Your task to perform on an android device: install app "Microsoft Authenticator" Image 0: 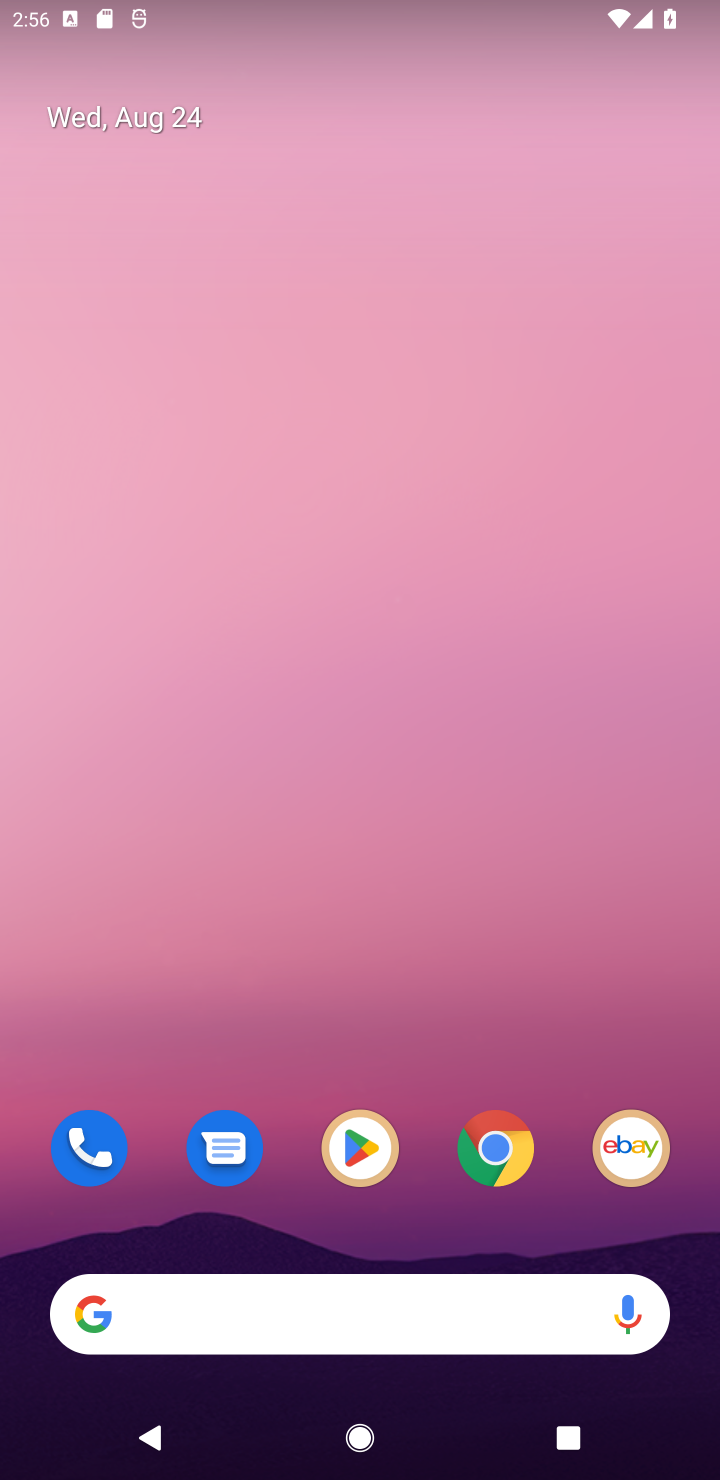
Step 0: drag from (284, 1222) to (254, 407)
Your task to perform on an android device: install app "Microsoft Authenticator" Image 1: 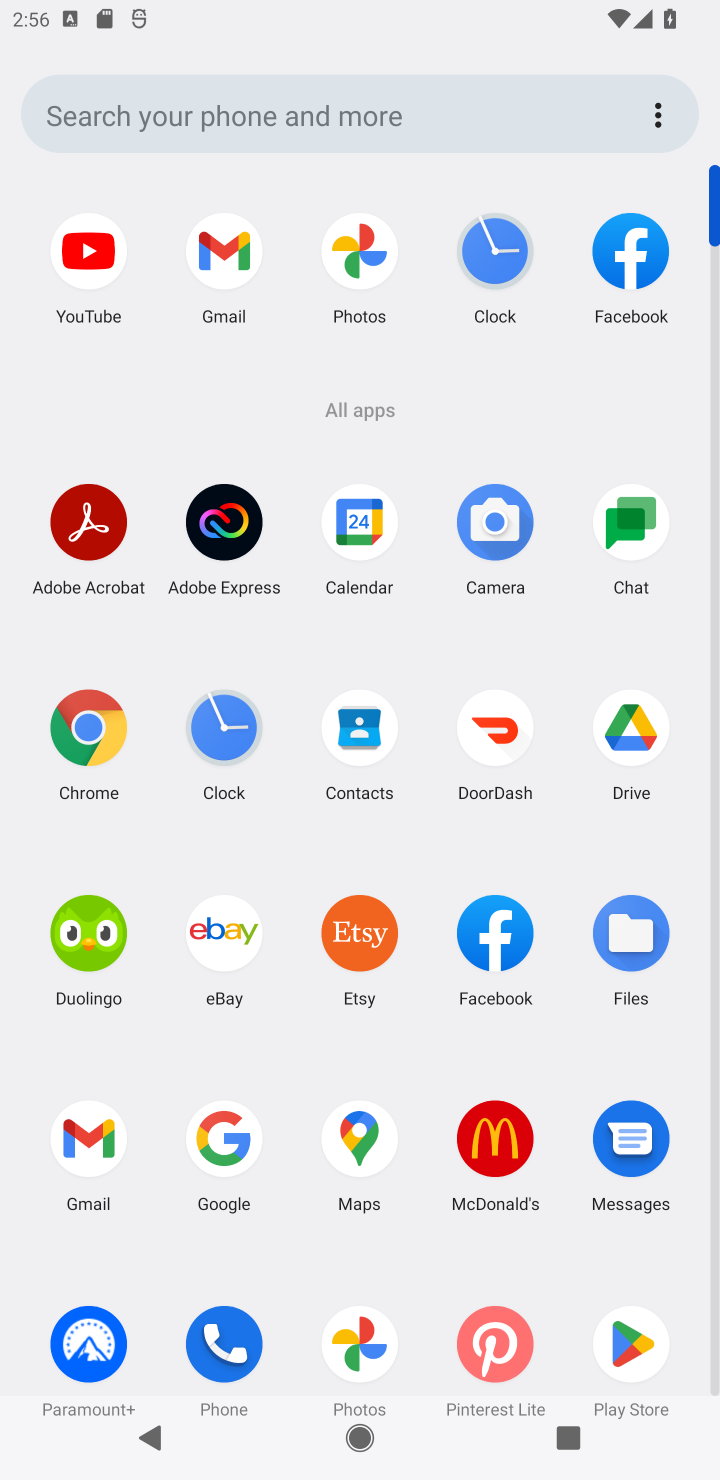
Step 1: click (630, 1322)
Your task to perform on an android device: install app "Microsoft Authenticator" Image 2: 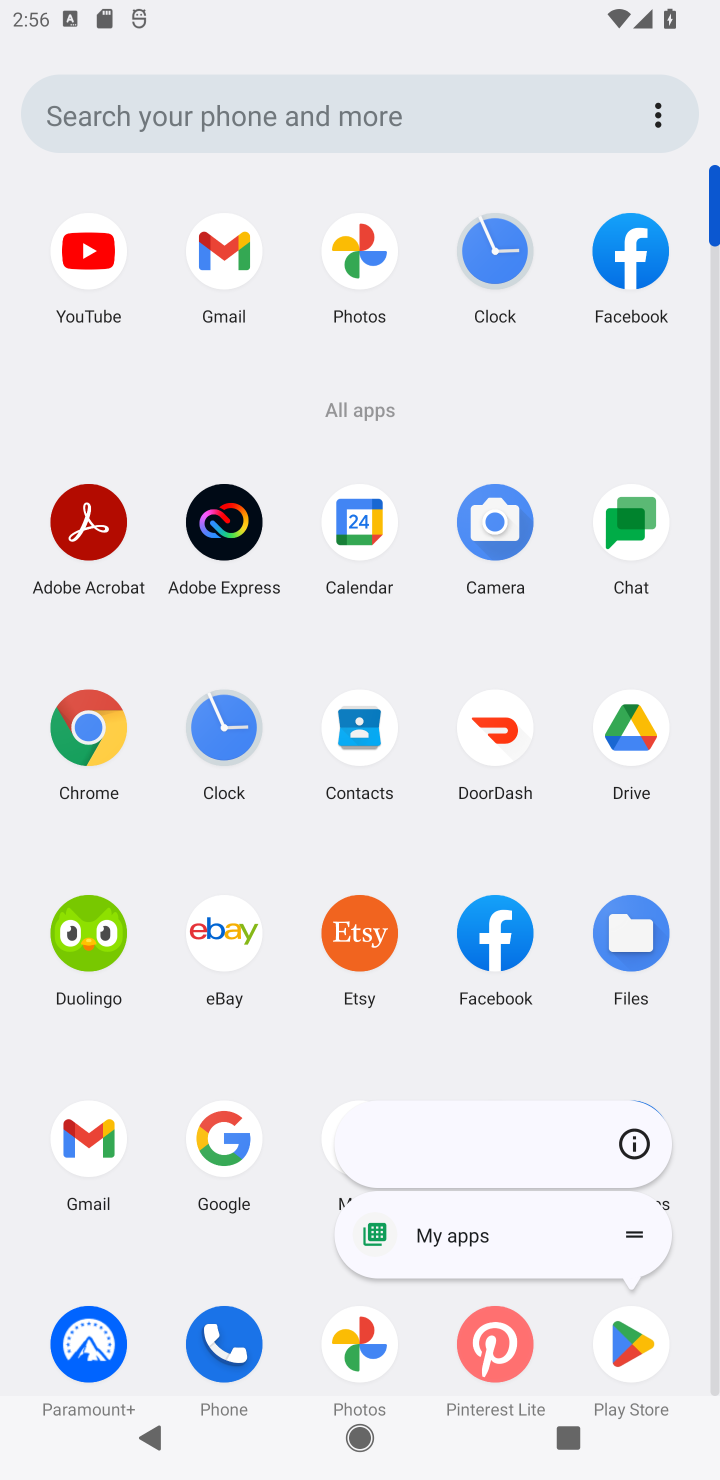
Step 2: click (634, 1317)
Your task to perform on an android device: install app "Microsoft Authenticator" Image 3: 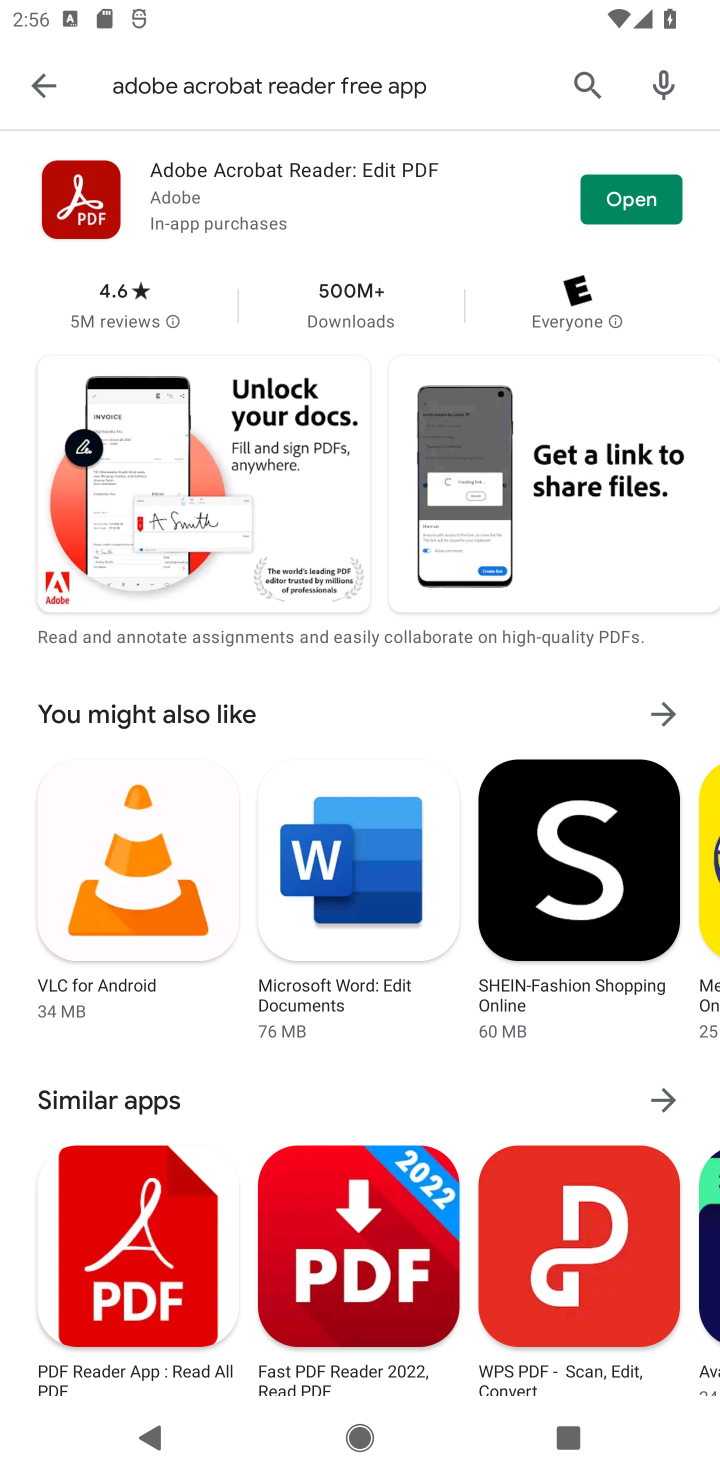
Step 3: click (52, 75)
Your task to perform on an android device: install app "Microsoft Authenticator" Image 4: 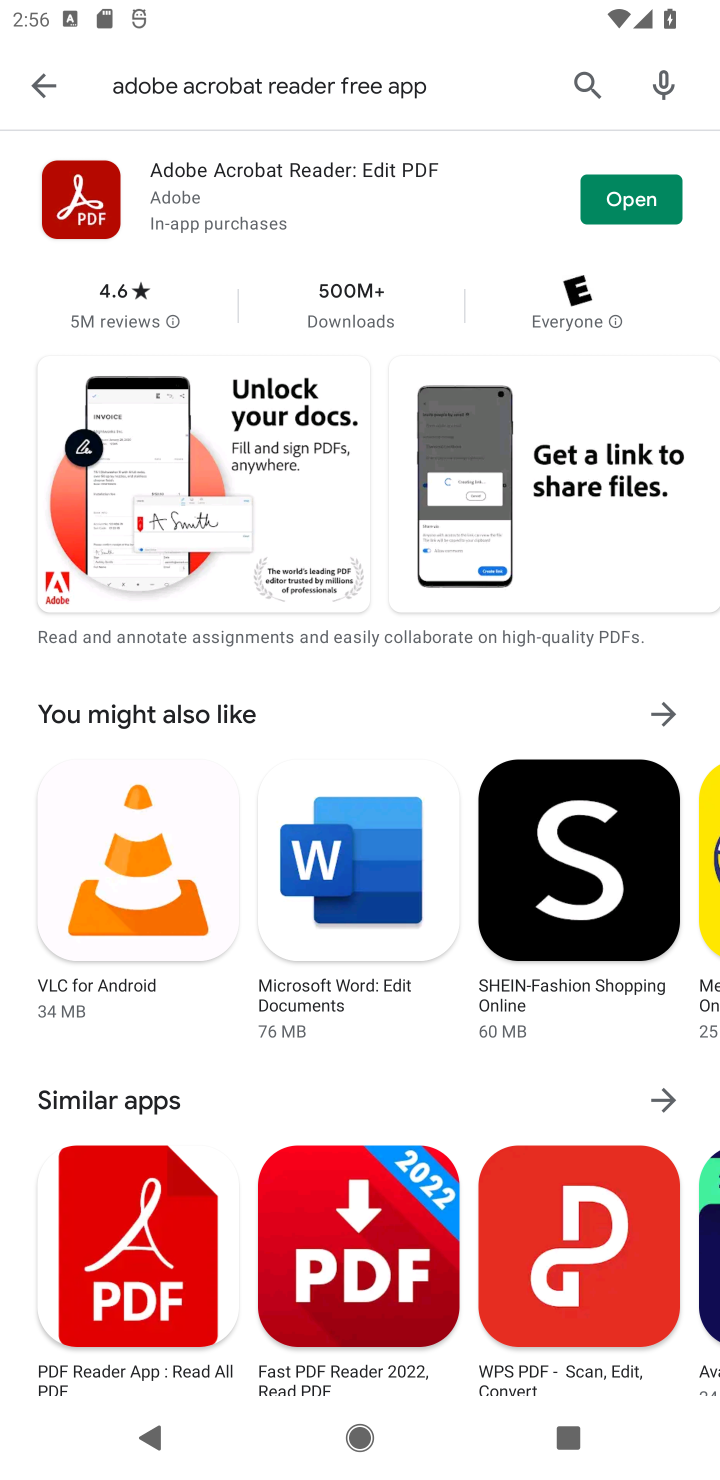
Step 4: click (52, 75)
Your task to perform on an android device: install app "Microsoft Authenticator" Image 5: 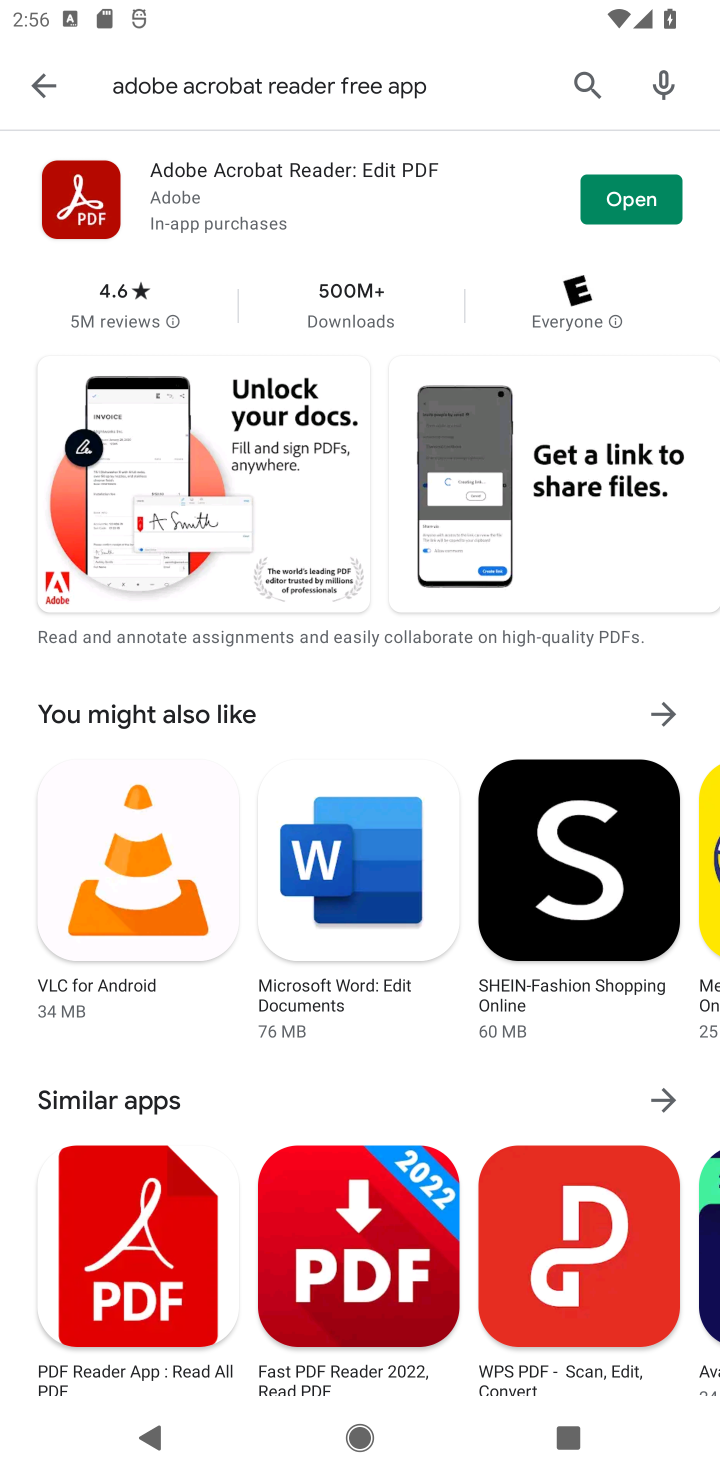
Step 5: click (594, 67)
Your task to perform on an android device: install app "Microsoft Authenticator" Image 6: 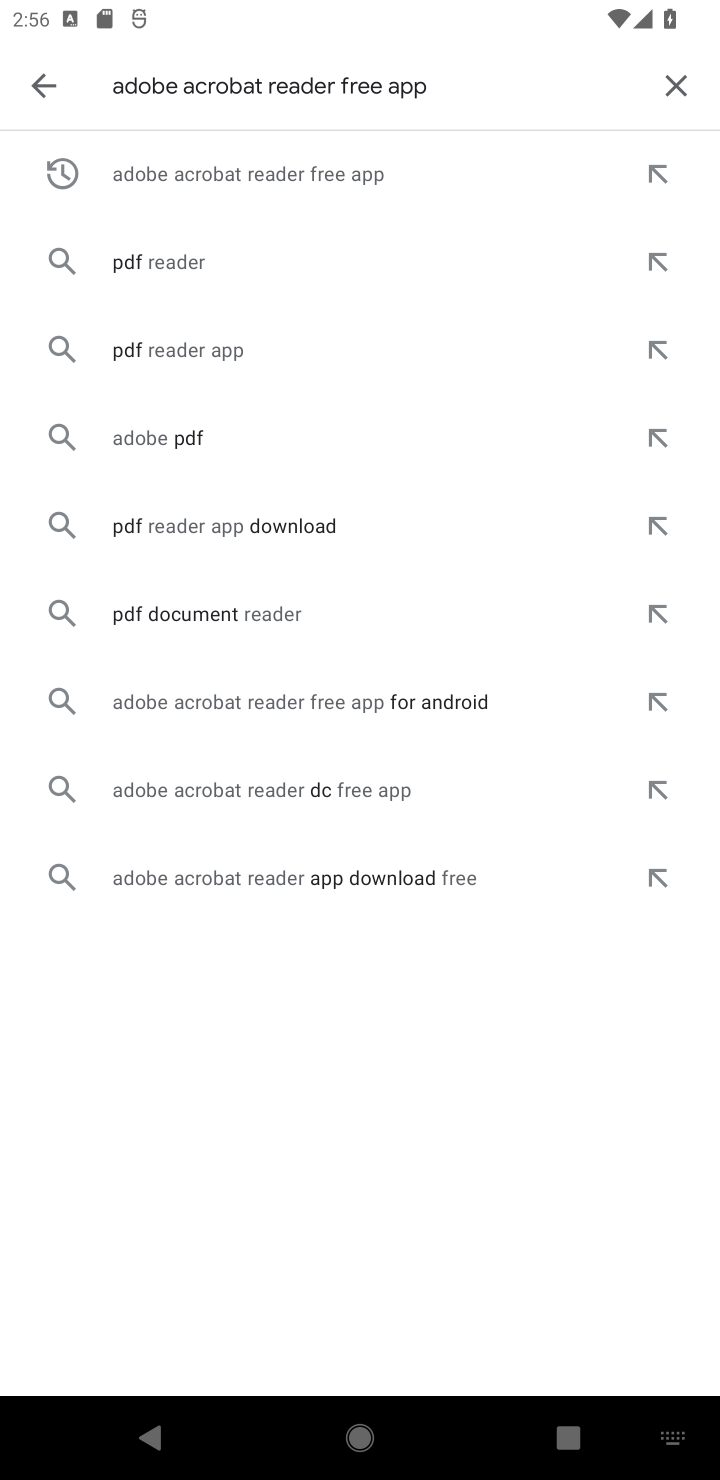
Step 6: click (691, 69)
Your task to perform on an android device: install app "Microsoft Authenticator" Image 7: 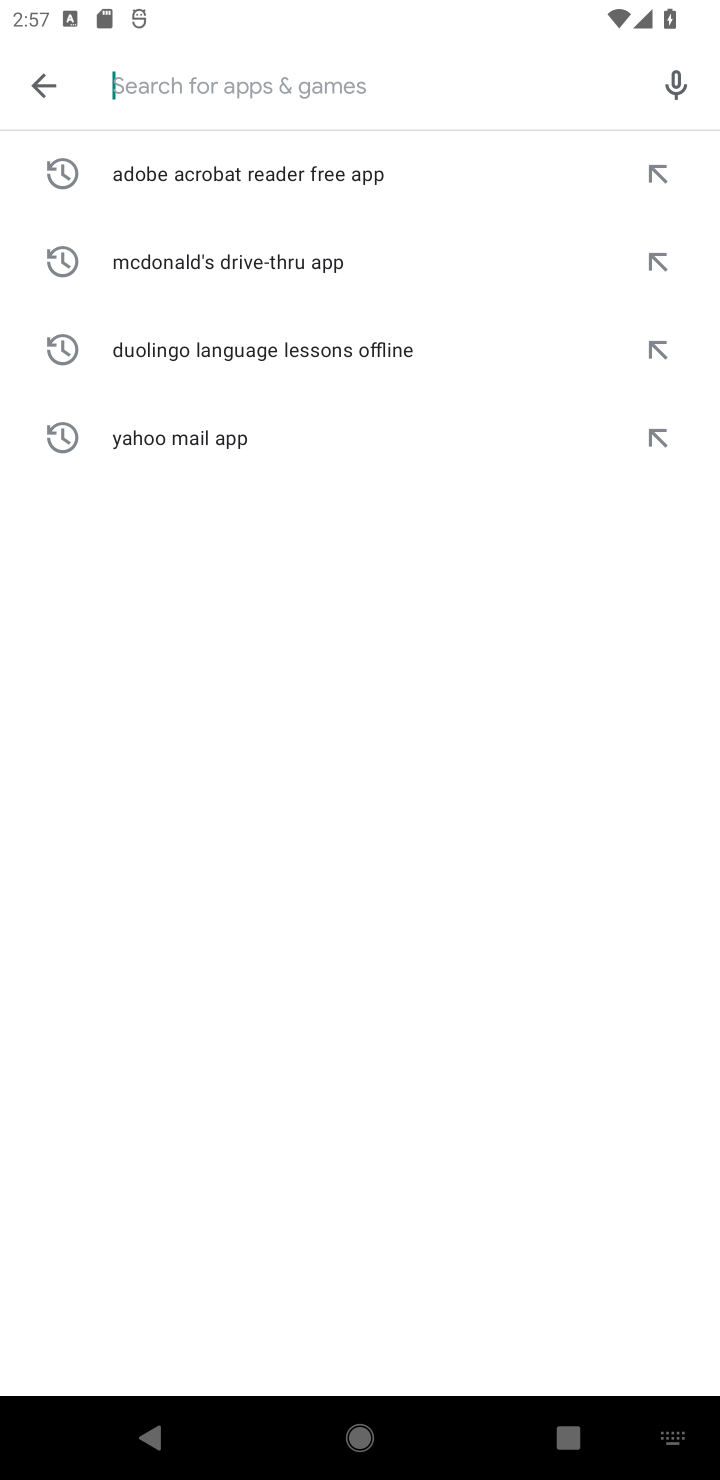
Step 7: click (340, 87)
Your task to perform on an android device: install app "Microsoft Authenticator" Image 8: 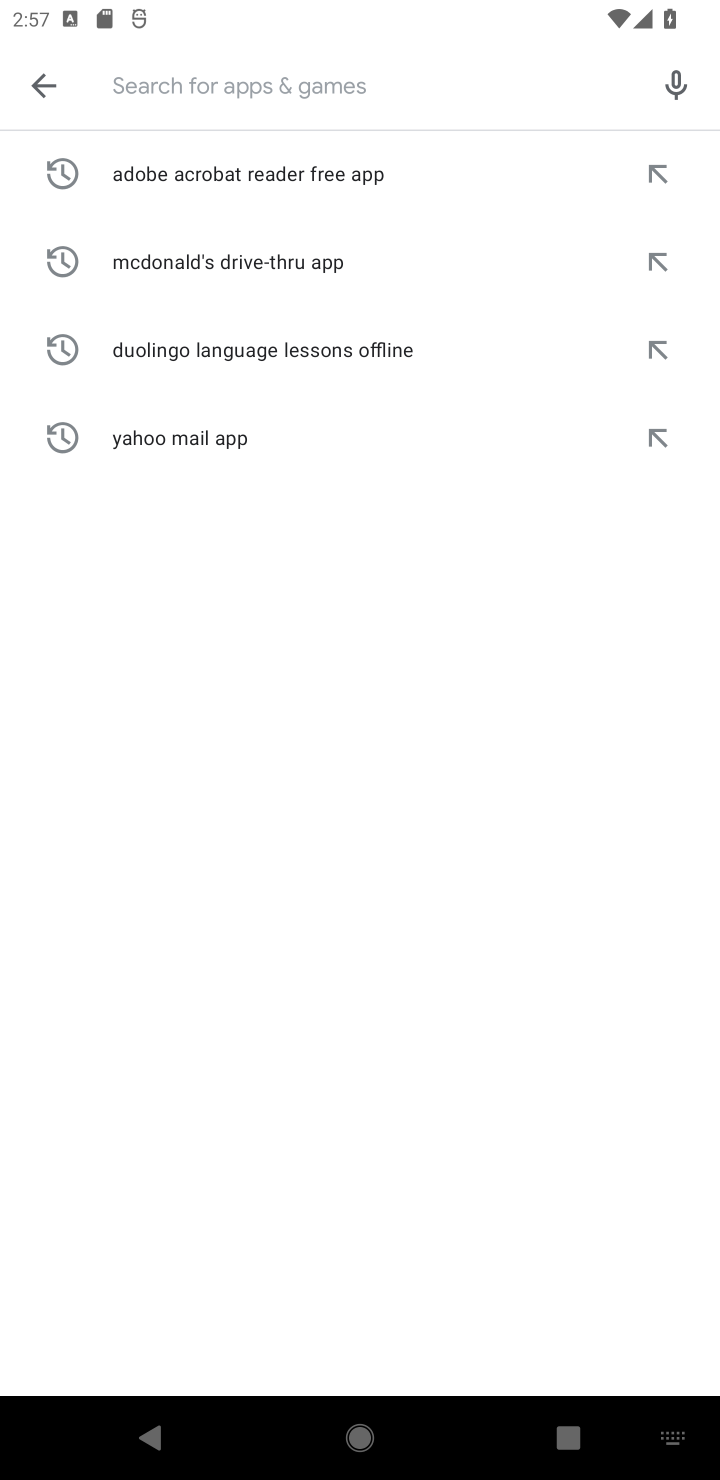
Step 8: type "Microsoft Authenticator "
Your task to perform on an android device: install app "Microsoft Authenticator" Image 9: 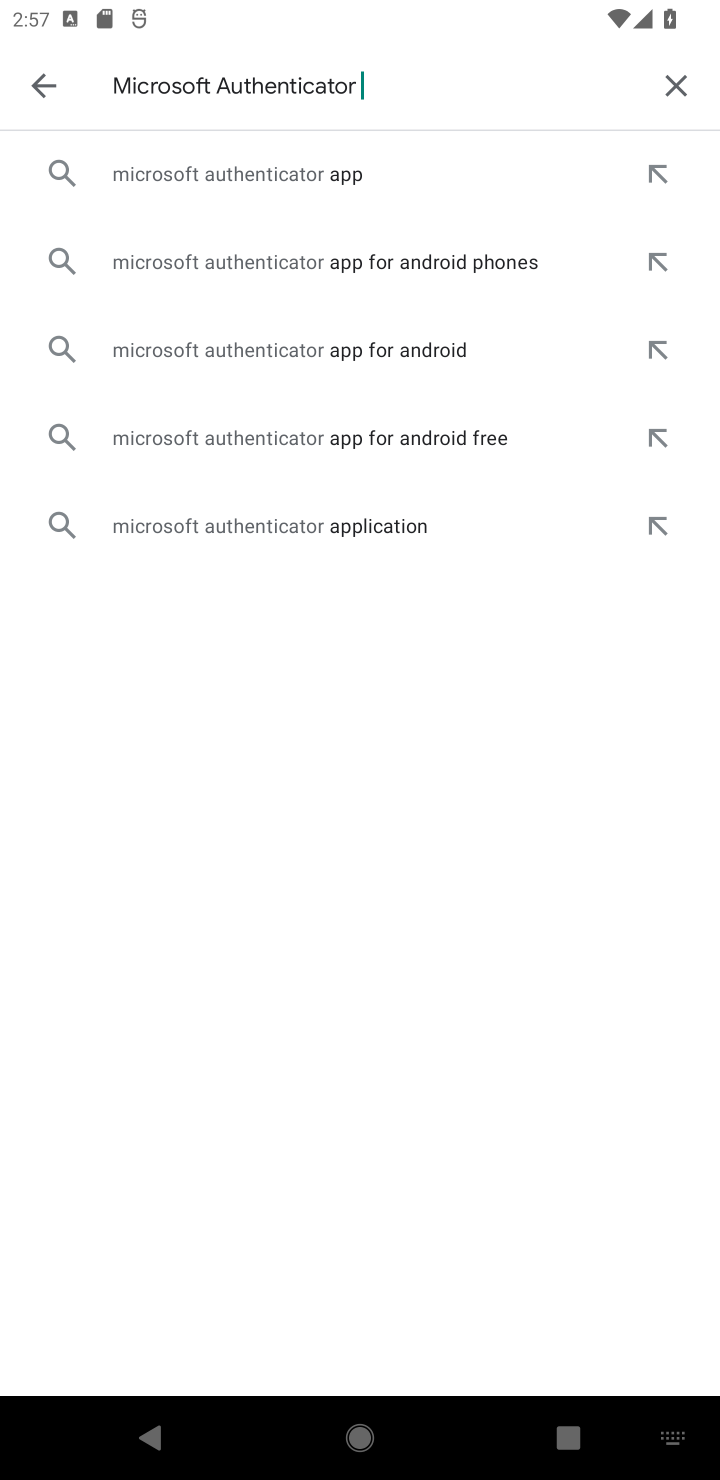
Step 9: click (237, 169)
Your task to perform on an android device: install app "Microsoft Authenticator" Image 10: 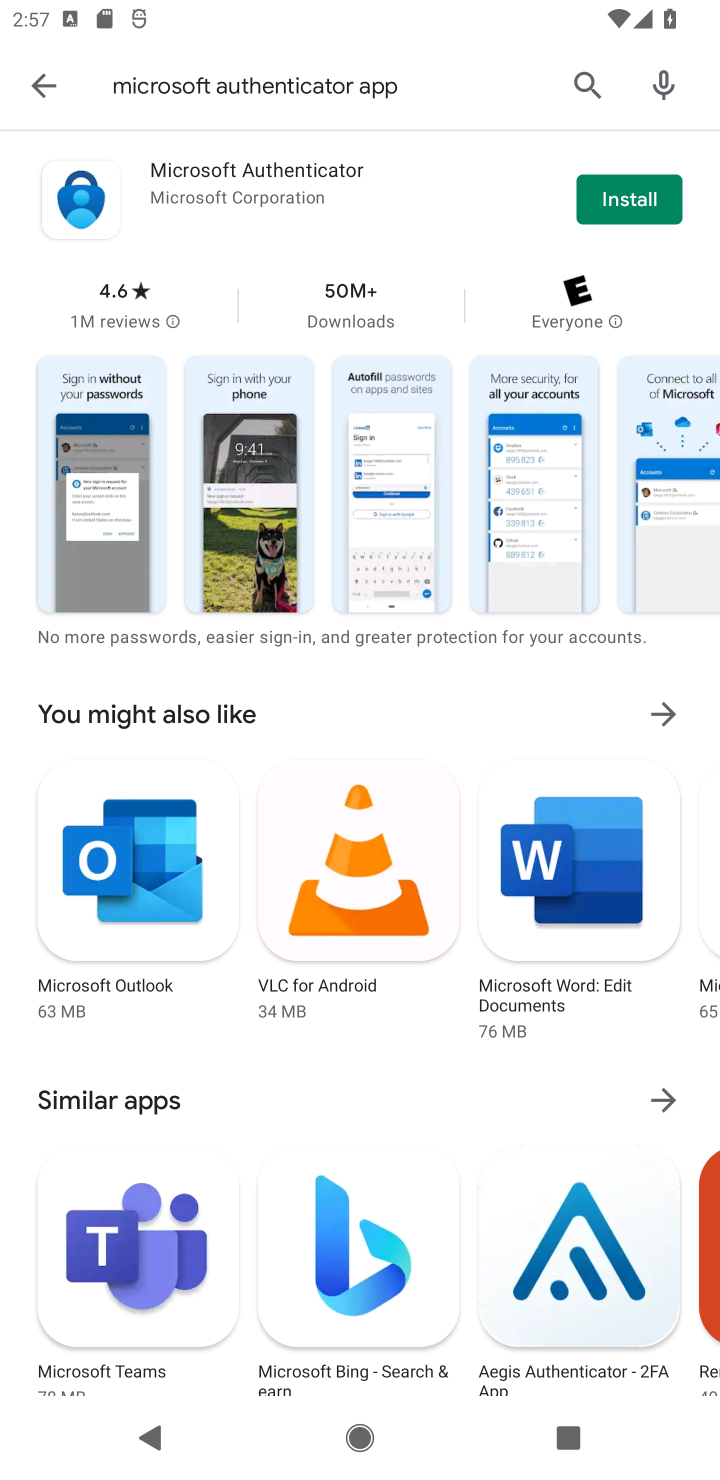
Step 10: click (636, 192)
Your task to perform on an android device: install app "Microsoft Authenticator" Image 11: 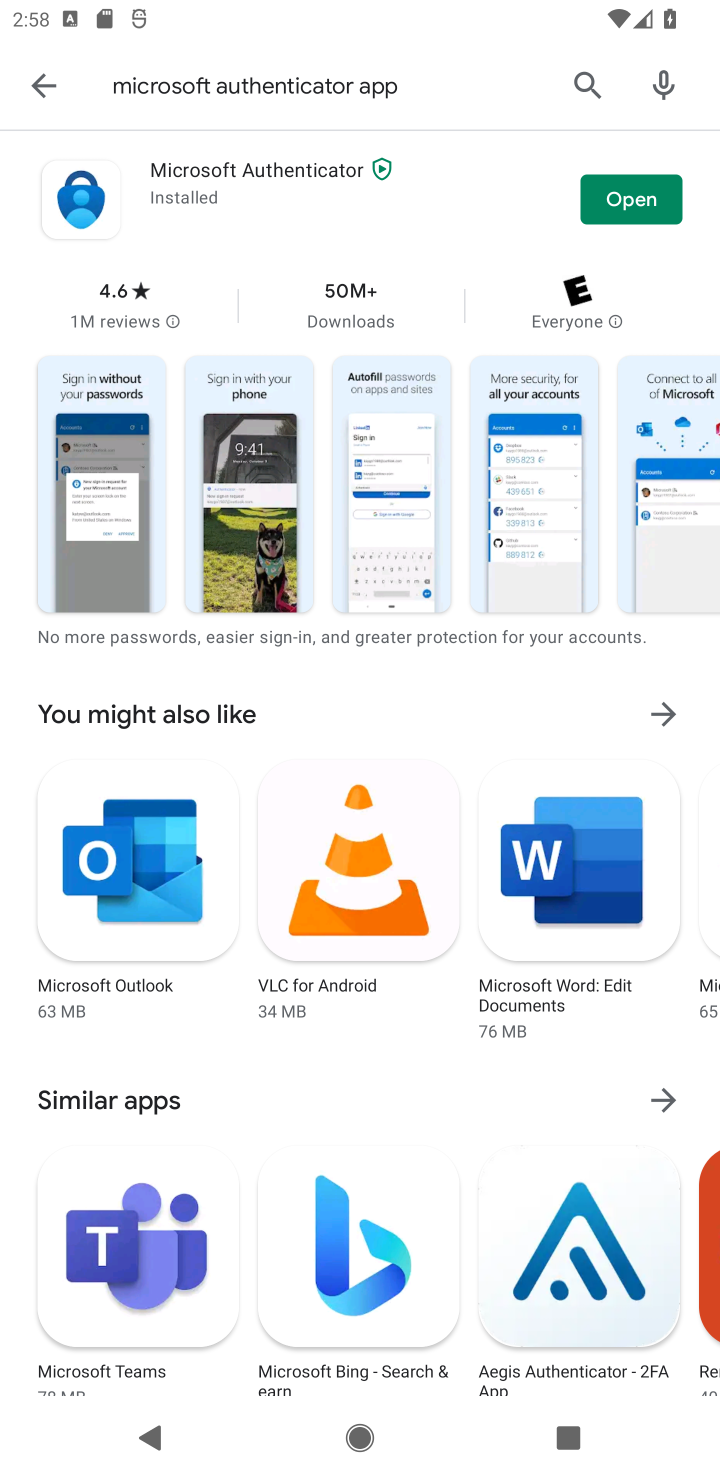
Step 11: click (624, 200)
Your task to perform on an android device: install app "Microsoft Authenticator" Image 12: 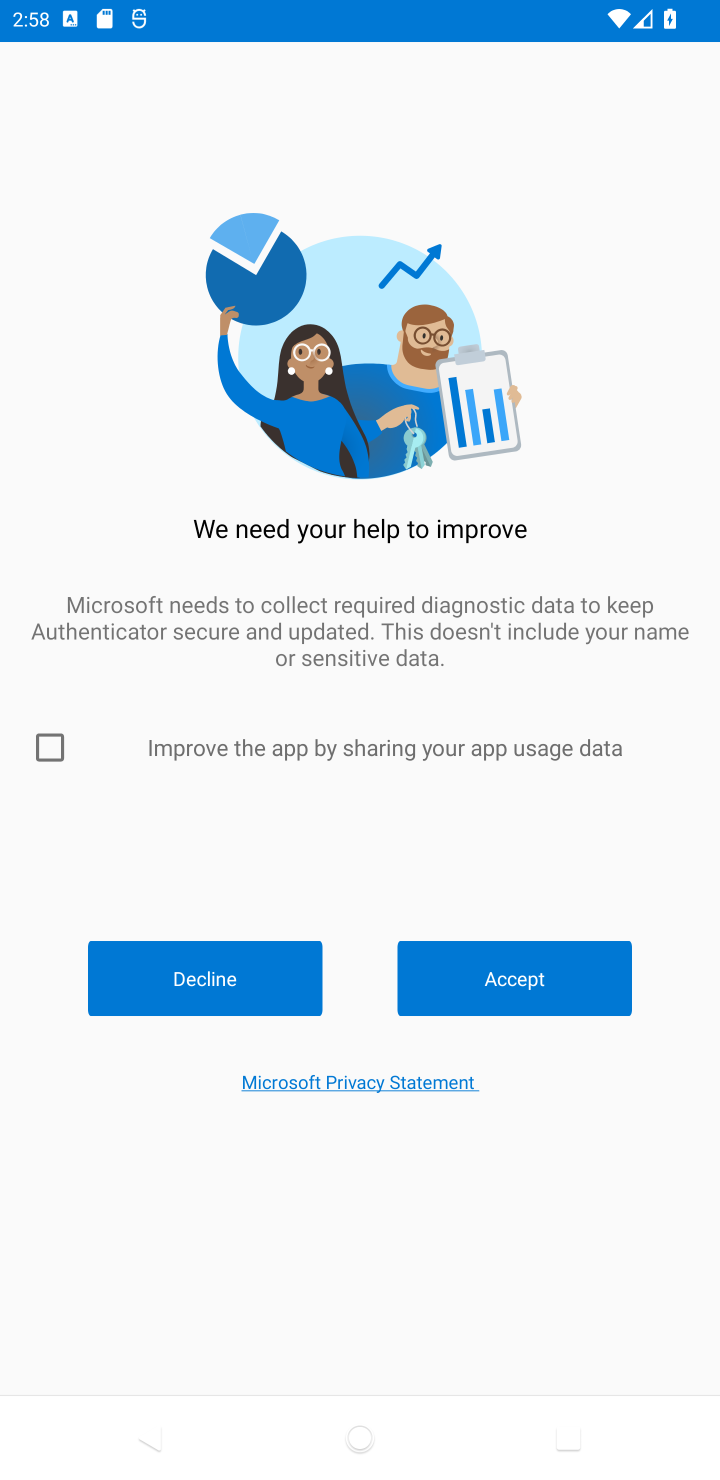
Step 12: task complete